Your task to perform on an android device: turn off improve location accuracy Image 0: 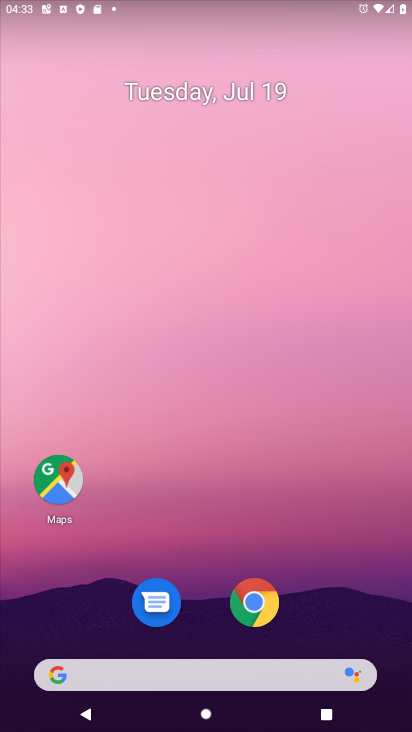
Step 0: drag from (180, 629) to (64, 30)
Your task to perform on an android device: turn off improve location accuracy Image 1: 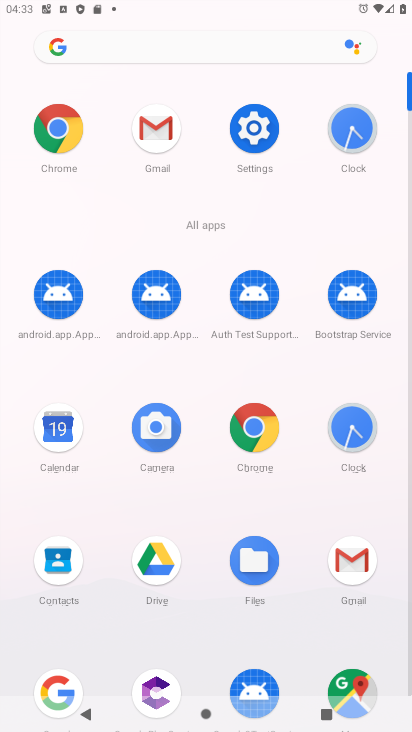
Step 1: click (266, 155)
Your task to perform on an android device: turn off improve location accuracy Image 2: 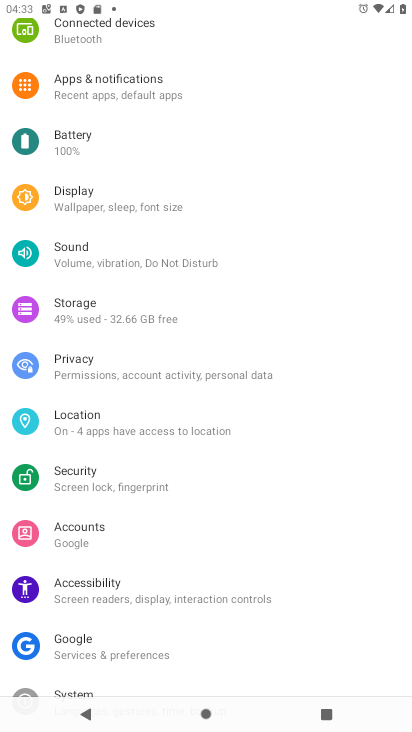
Step 2: click (105, 435)
Your task to perform on an android device: turn off improve location accuracy Image 3: 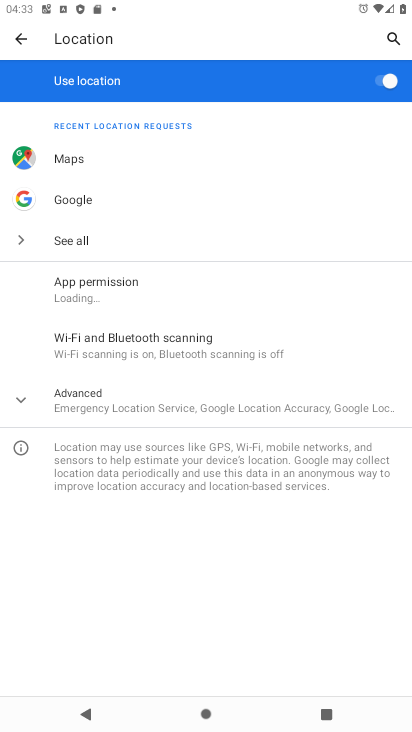
Step 3: click (128, 404)
Your task to perform on an android device: turn off improve location accuracy Image 4: 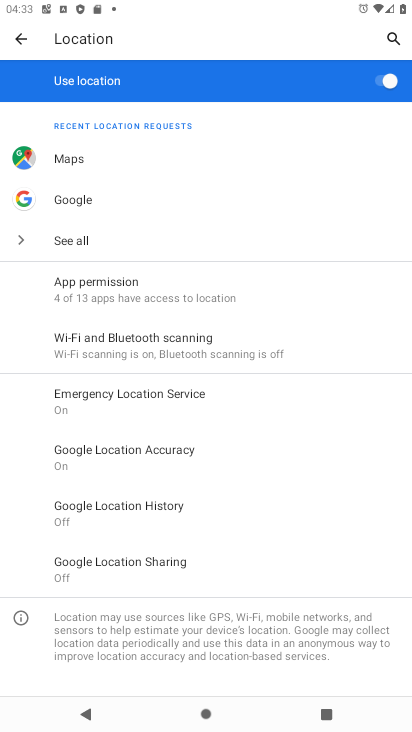
Step 4: click (188, 467)
Your task to perform on an android device: turn off improve location accuracy Image 5: 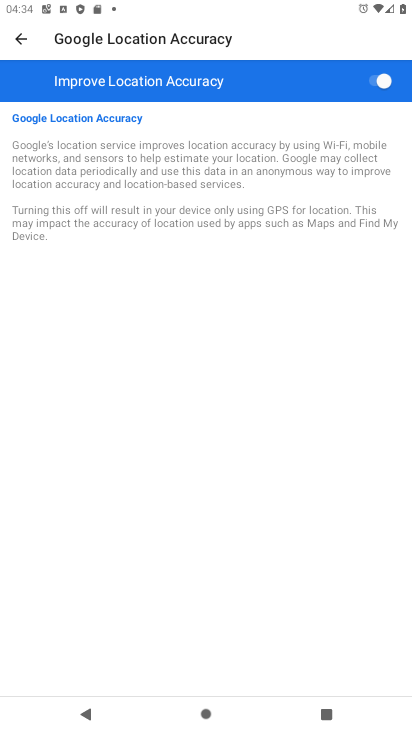
Step 5: click (378, 81)
Your task to perform on an android device: turn off improve location accuracy Image 6: 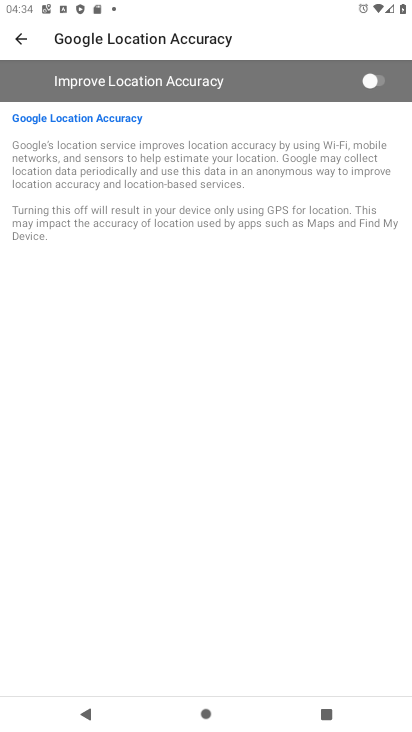
Step 6: task complete